Your task to perform on an android device: See recent photos Image 0: 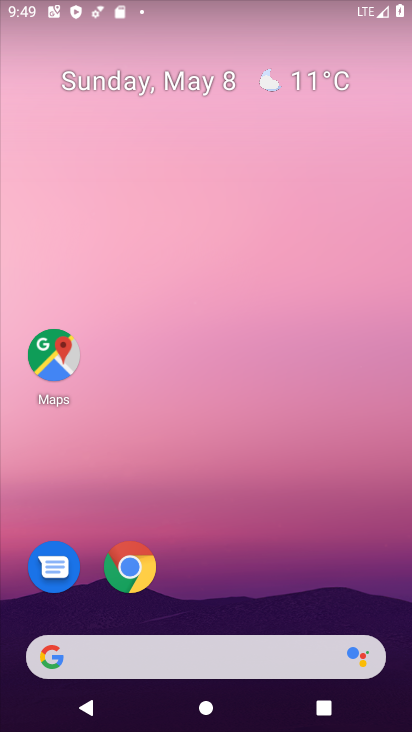
Step 0: drag from (220, 559) to (313, 80)
Your task to perform on an android device: See recent photos Image 1: 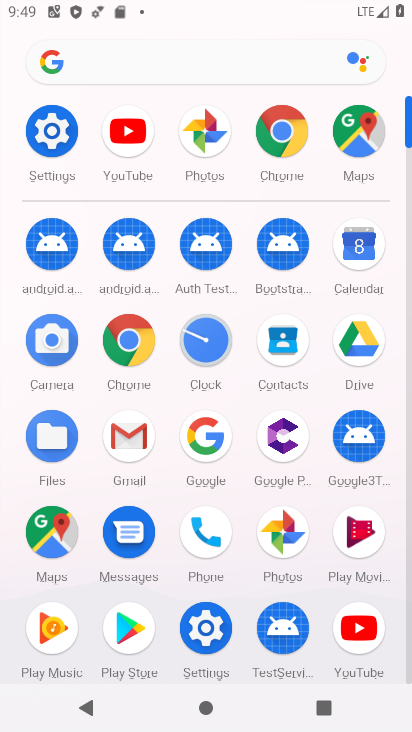
Step 1: click (284, 543)
Your task to perform on an android device: See recent photos Image 2: 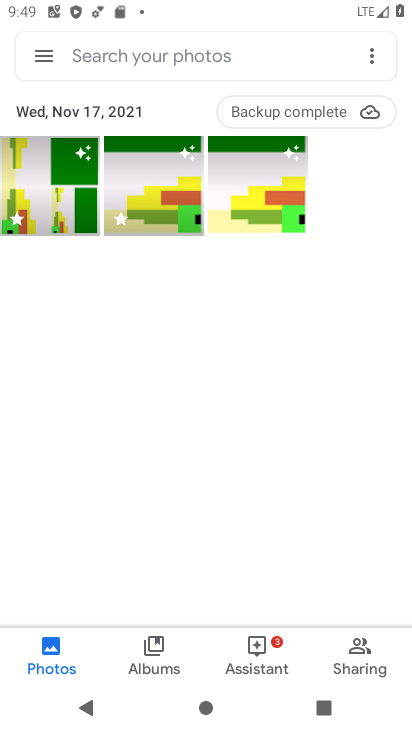
Step 2: click (55, 666)
Your task to perform on an android device: See recent photos Image 3: 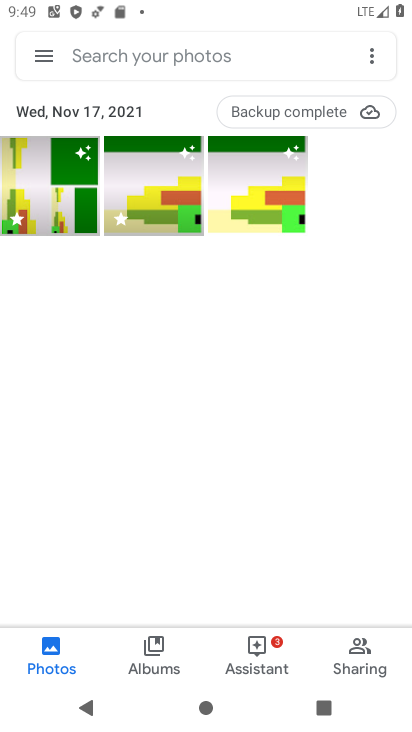
Step 3: task complete